Your task to perform on an android device: Search for energizer triple a on target, select the first entry, and add it to the cart. Image 0: 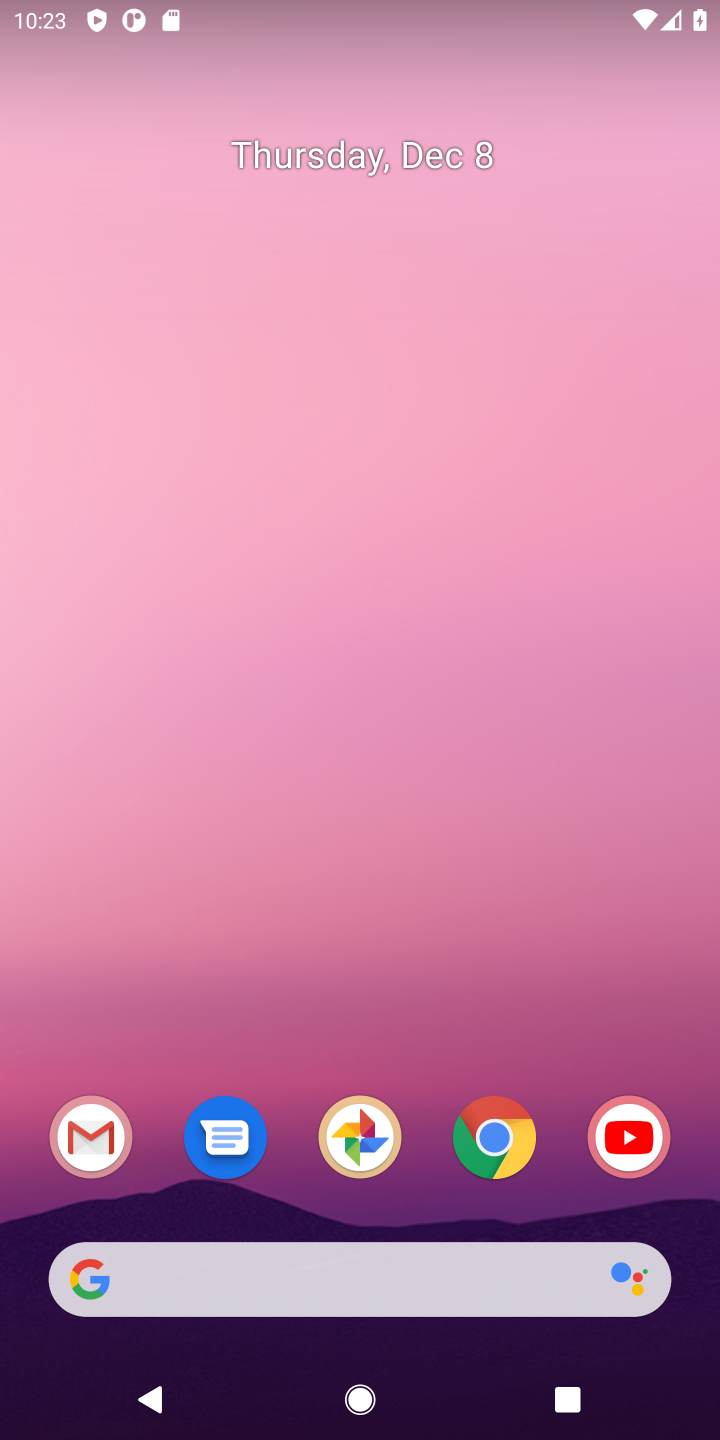
Step 0: click (486, 1137)
Your task to perform on an android device: Search for energizer triple a on target, select the first entry, and add it to the cart. Image 1: 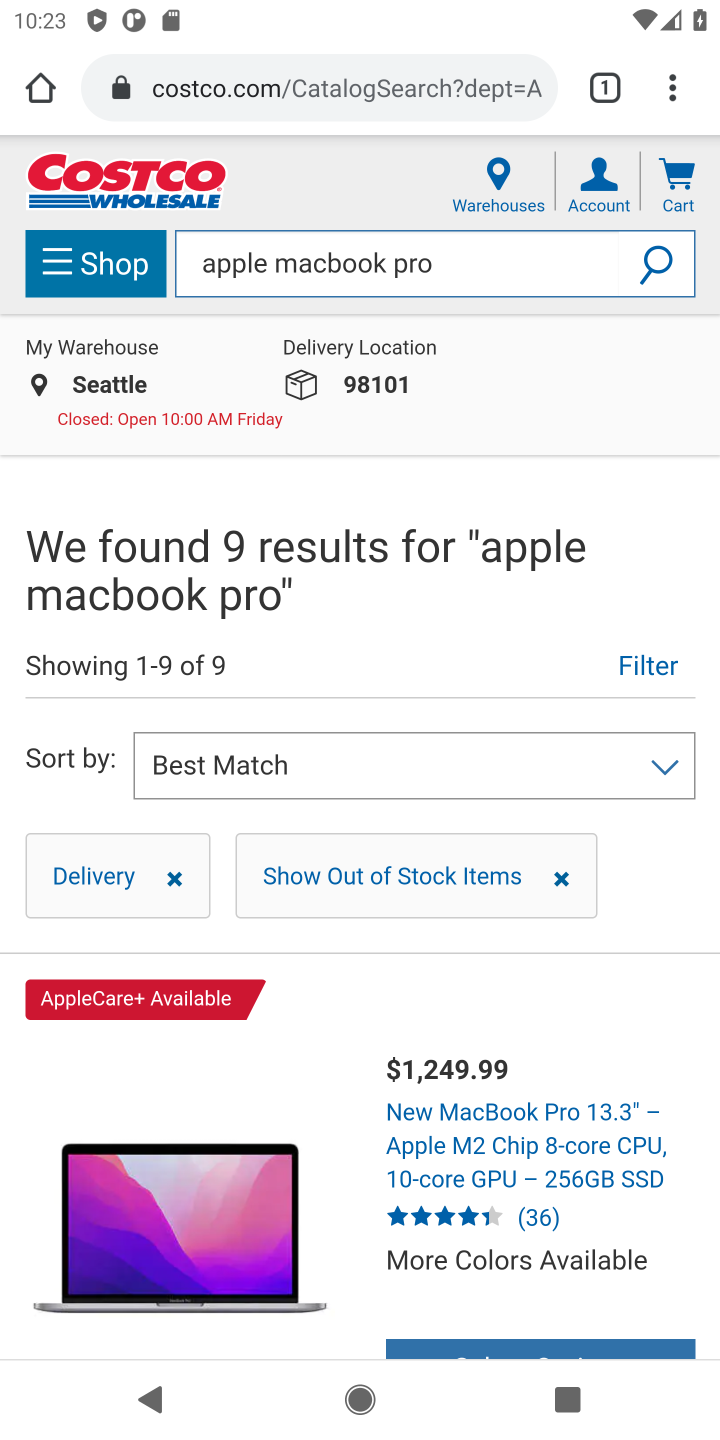
Step 1: click (381, 85)
Your task to perform on an android device: Search for energizer triple a on target, select the first entry, and add it to the cart. Image 2: 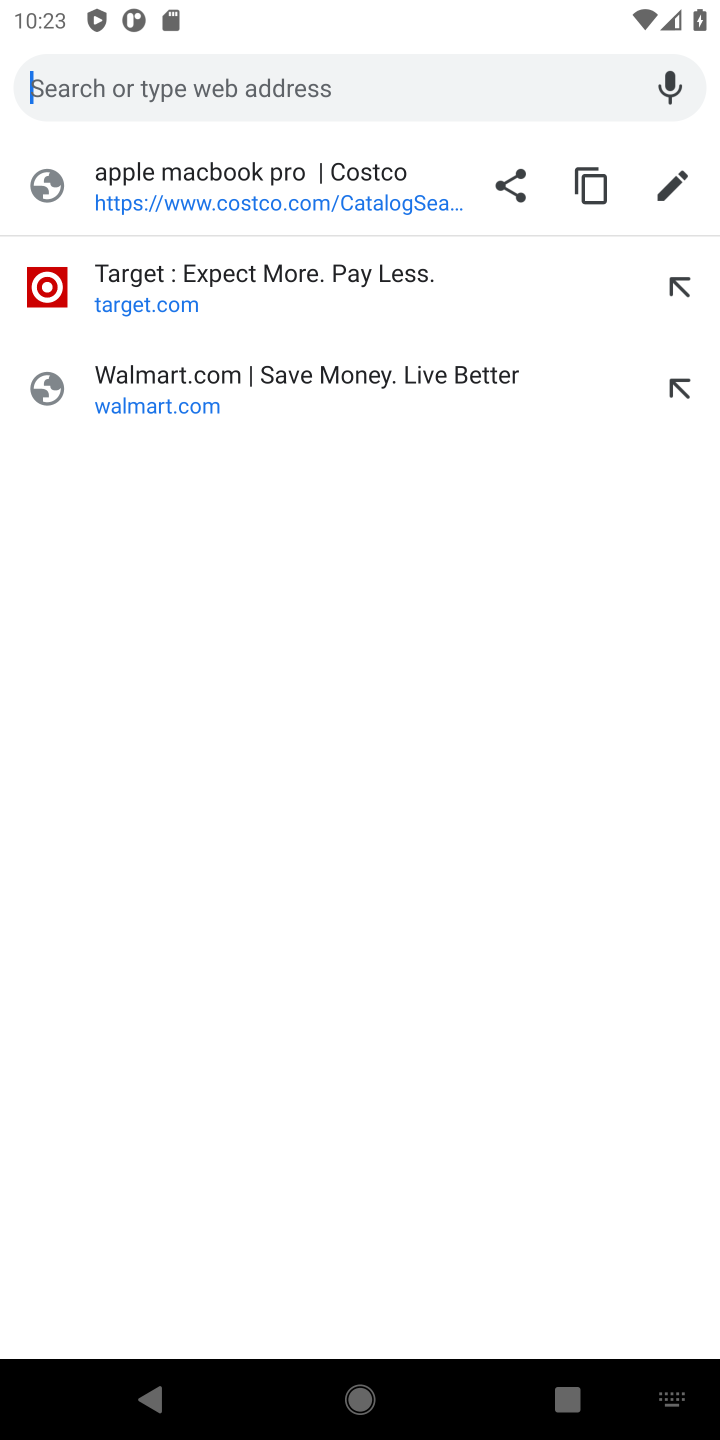
Step 2: click (386, 282)
Your task to perform on an android device: Search for energizer triple a on target, select the first entry, and add it to the cart. Image 3: 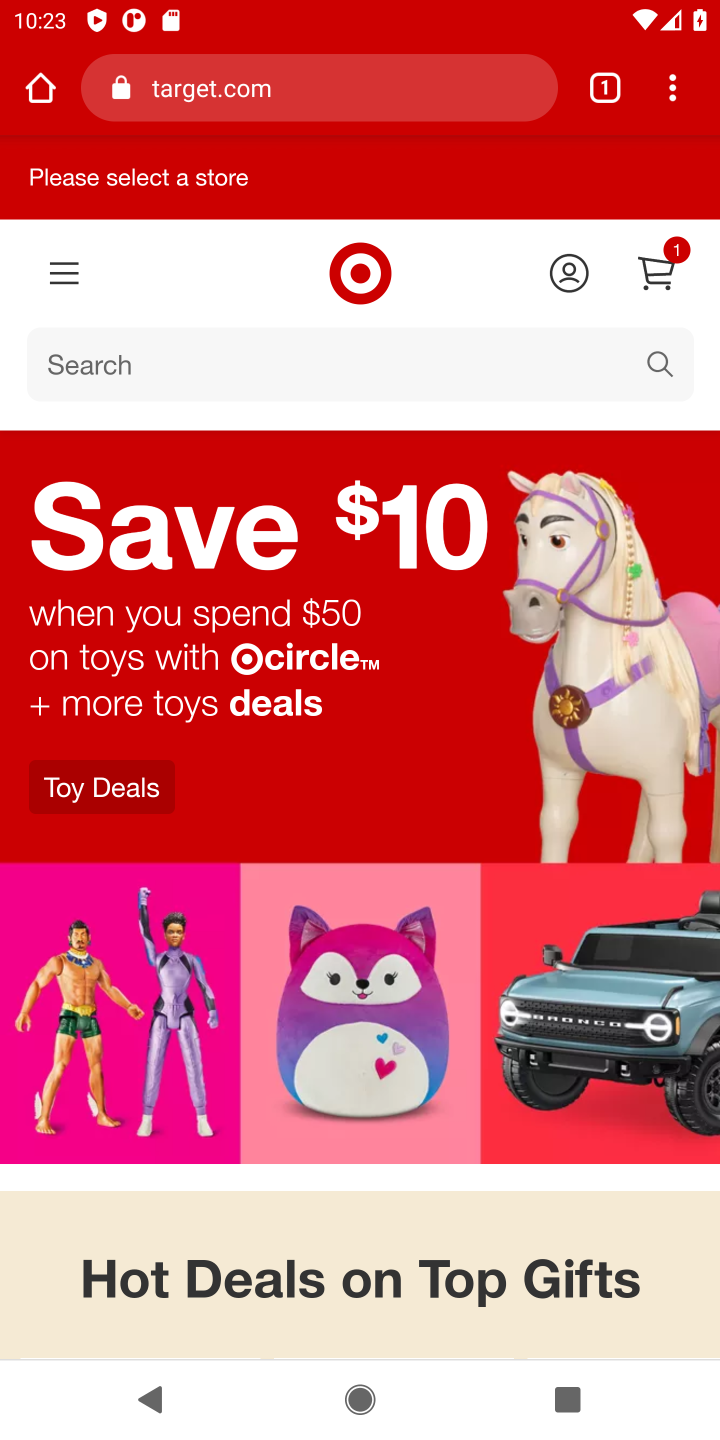
Step 3: click (486, 360)
Your task to perform on an android device: Search for energizer triple a on target, select the first entry, and add it to the cart. Image 4: 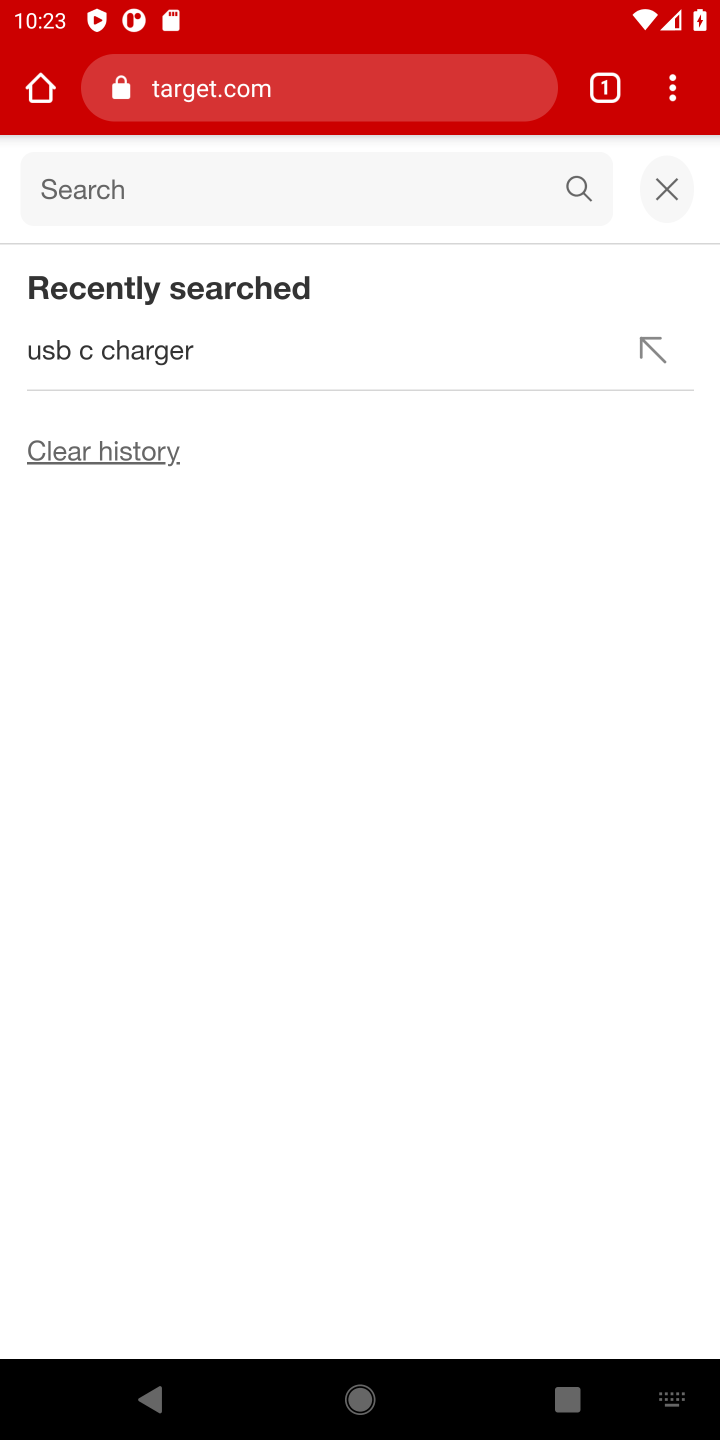
Step 4: type "energizer triple a"
Your task to perform on an android device: Search for energizer triple a on target, select the first entry, and add it to the cart. Image 5: 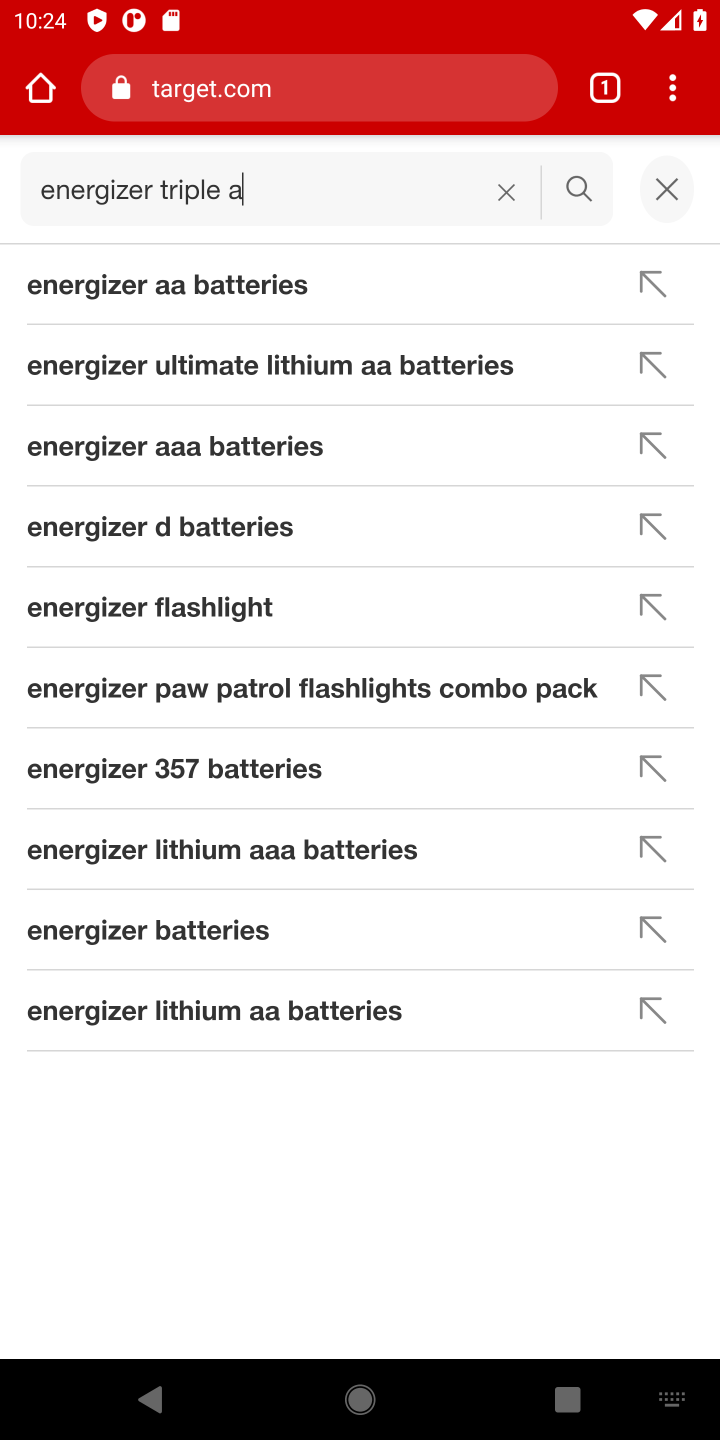
Step 5: click (183, 288)
Your task to perform on an android device: Search for energizer triple a on target, select the first entry, and add it to the cart. Image 6: 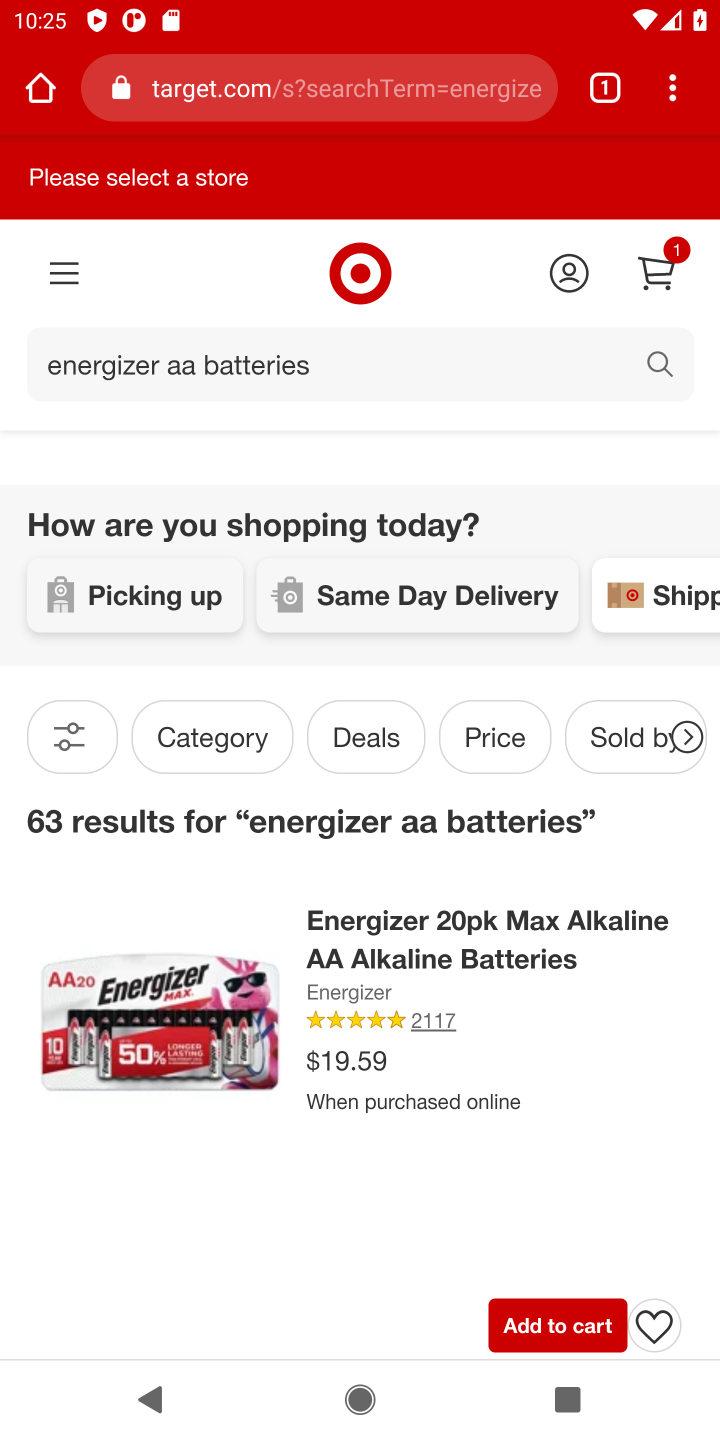
Step 6: click (551, 1326)
Your task to perform on an android device: Search for energizer triple a on target, select the first entry, and add it to the cart. Image 7: 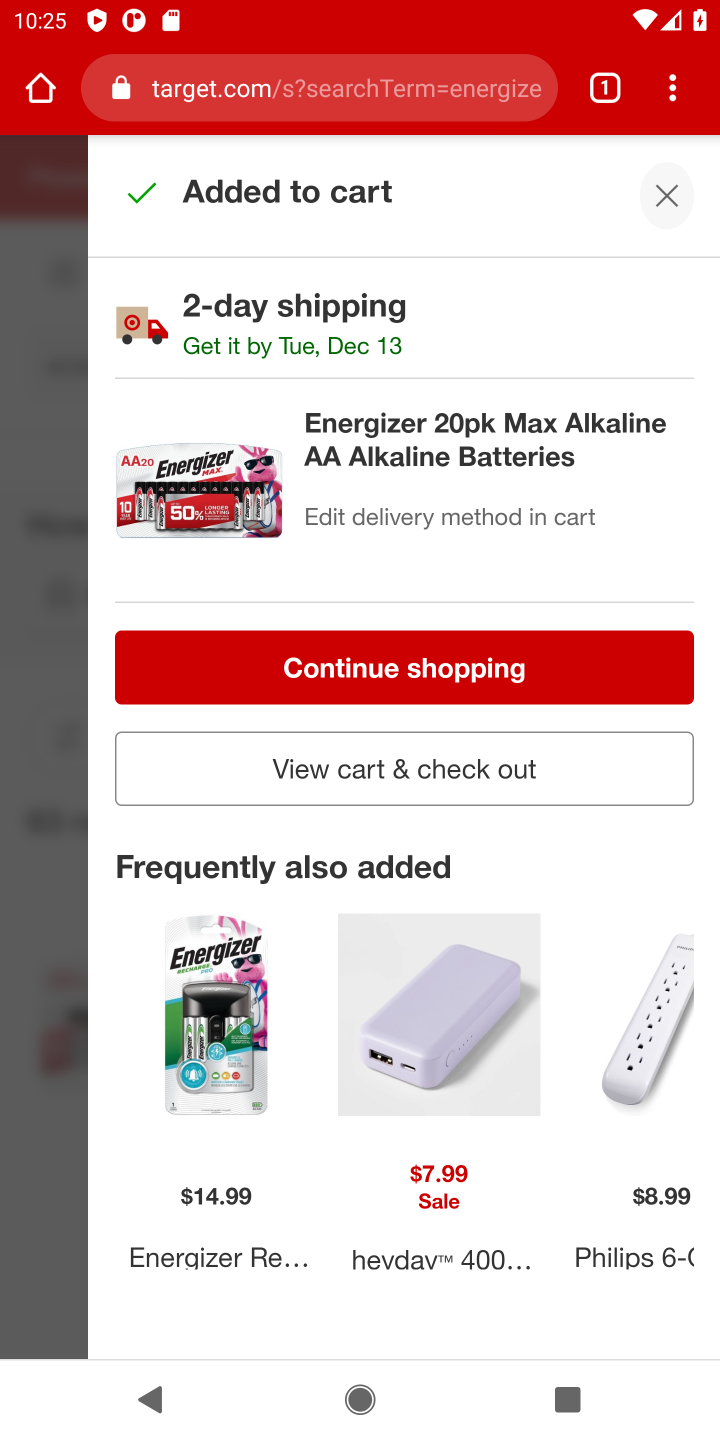
Step 7: click (664, 194)
Your task to perform on an android device: Search for energizer triple a on target, select the first entry, and add it to the cart. Image 8: 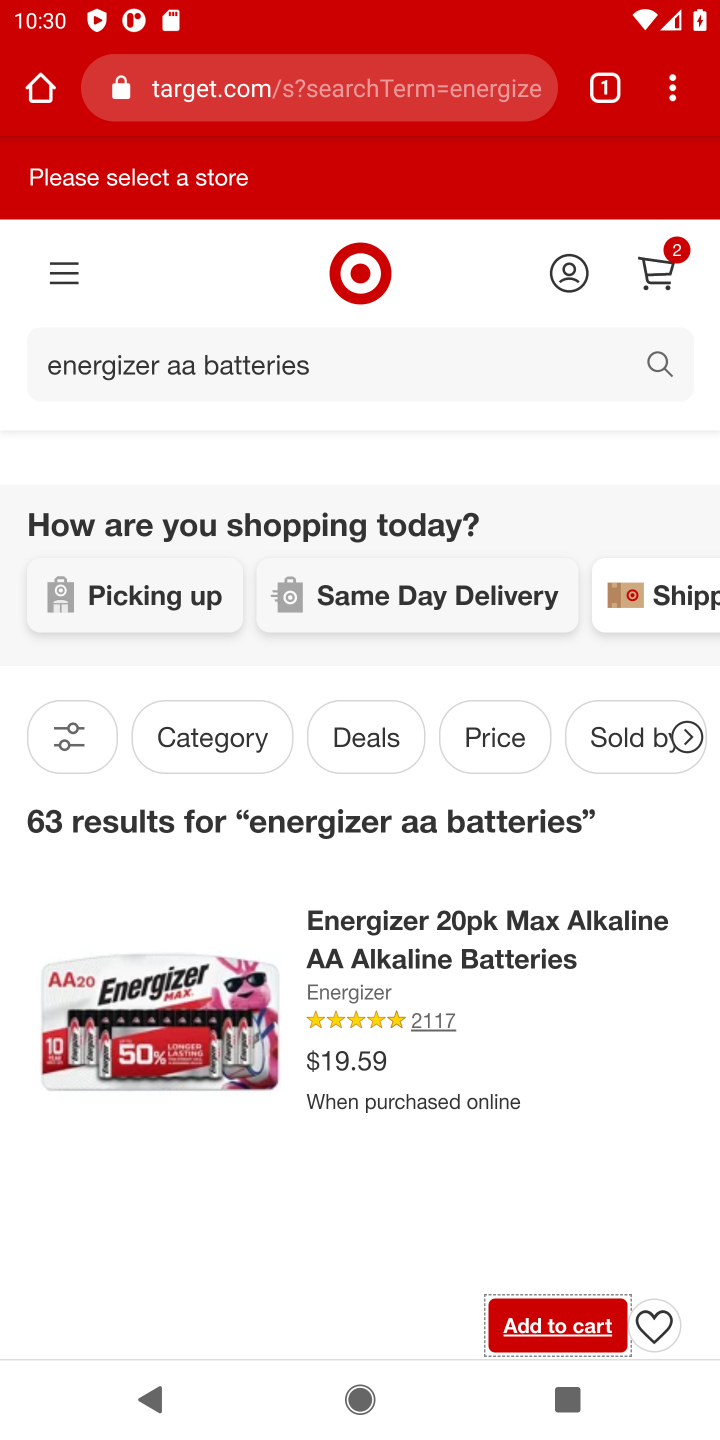
Step 8: task complete